Your task to perform on an android device: allow cookies in the chrome app Image 0: 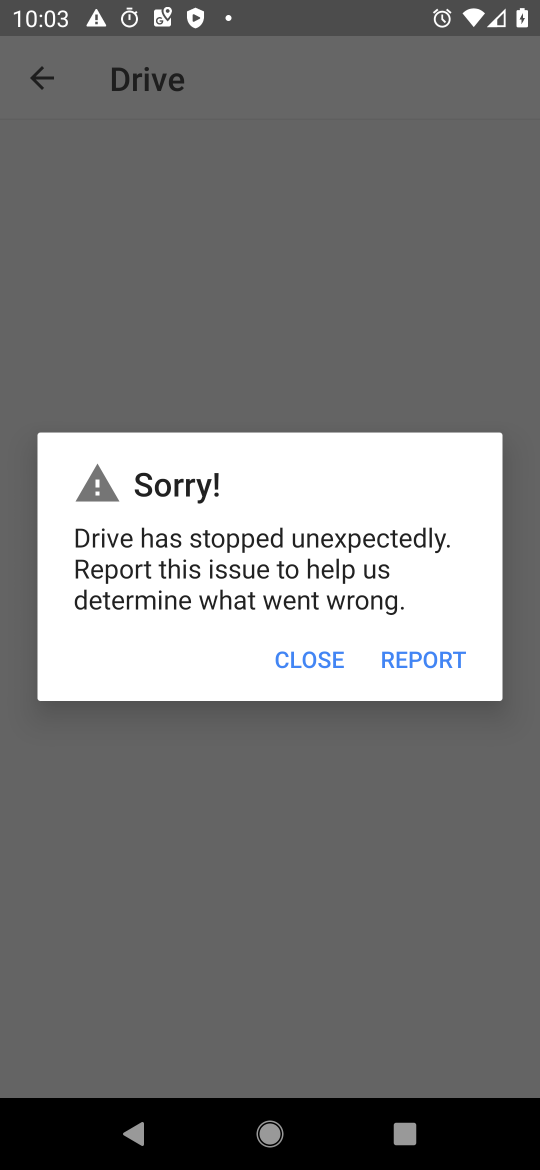
Step 0: drag from (365, 1103) to (312, 610)
Your task to perform on an android device: allow cookies in the chrome app Image 1: 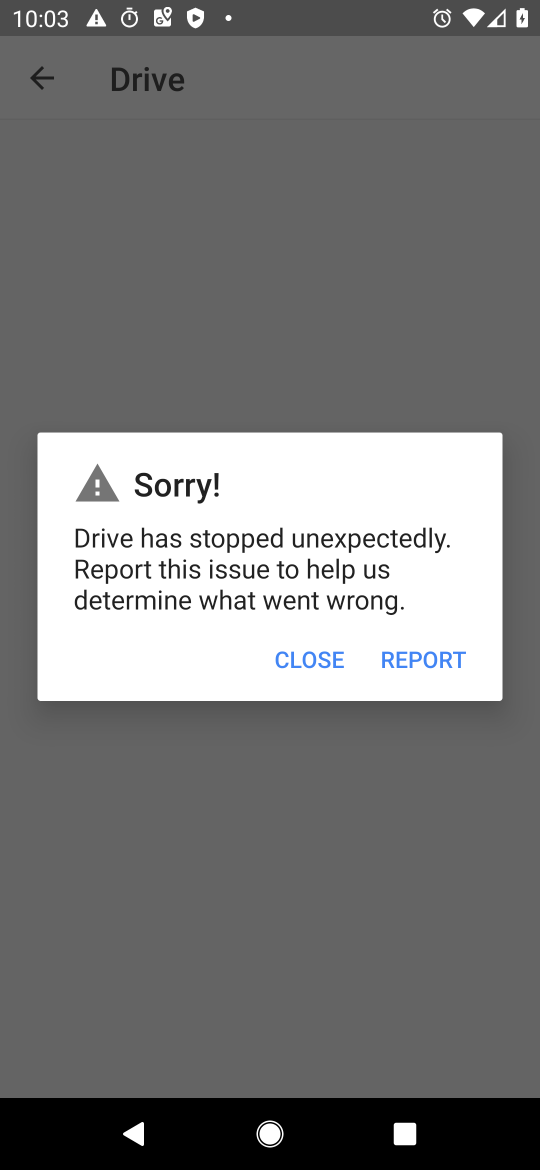
Step 1: press home button
Your task to perform on an android device: allow cookies in the chrome app Image 2: 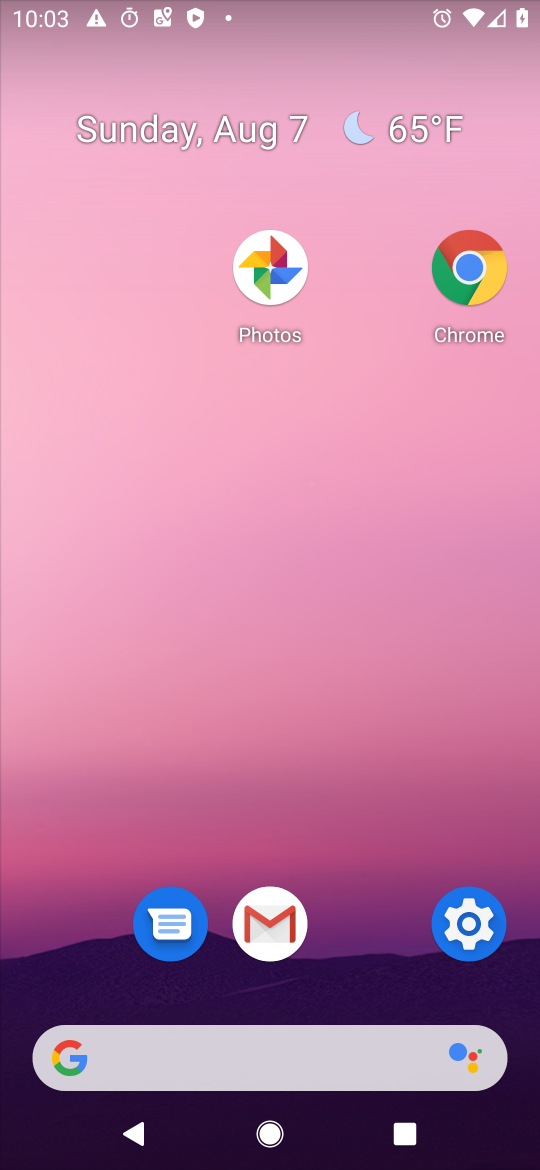
Step 2: drag from (356, 992) to (326, 277)
Your task to perform on an android device: allow cookies in the chrome app Image 3: 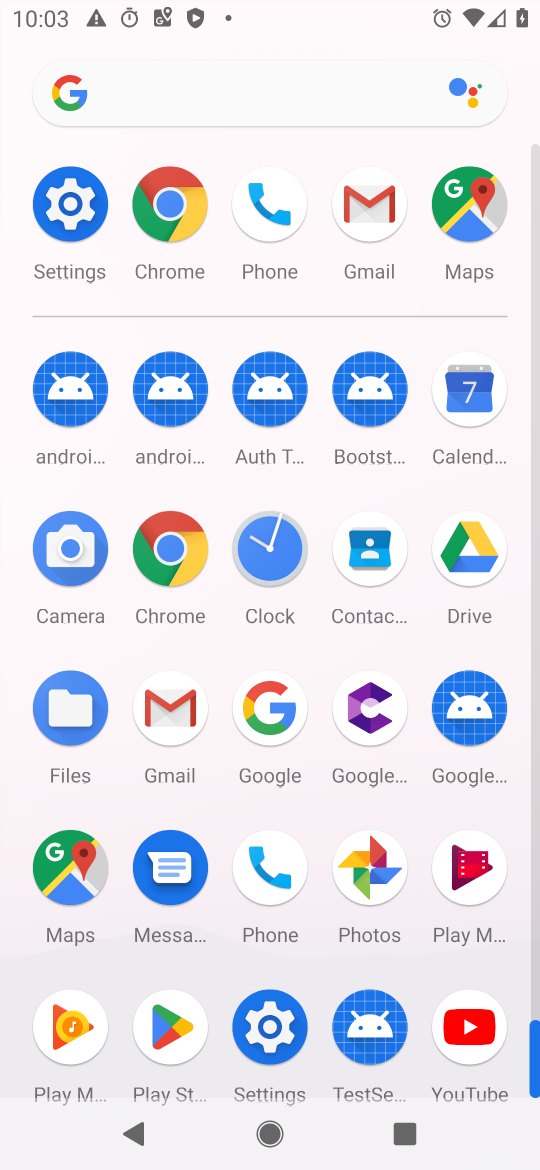
Step 3: click (164, 230)
Your task to perform on an android device: allow cookies in the chrome app Image 4: 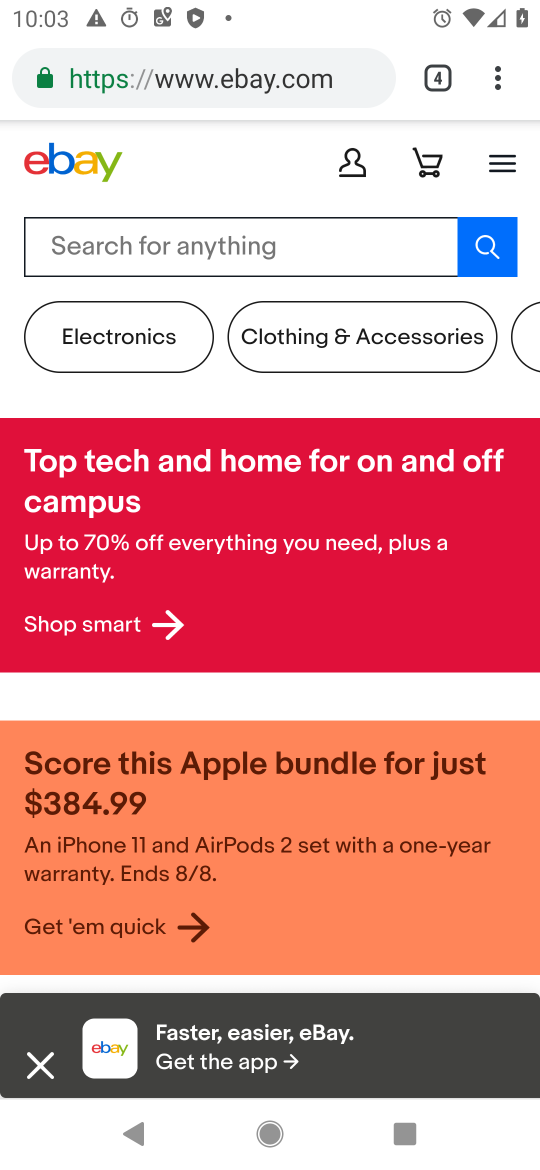
Step 4: click (497, 94)
Your task to perform on an android device: allow cookies in the chrome app Image 5: 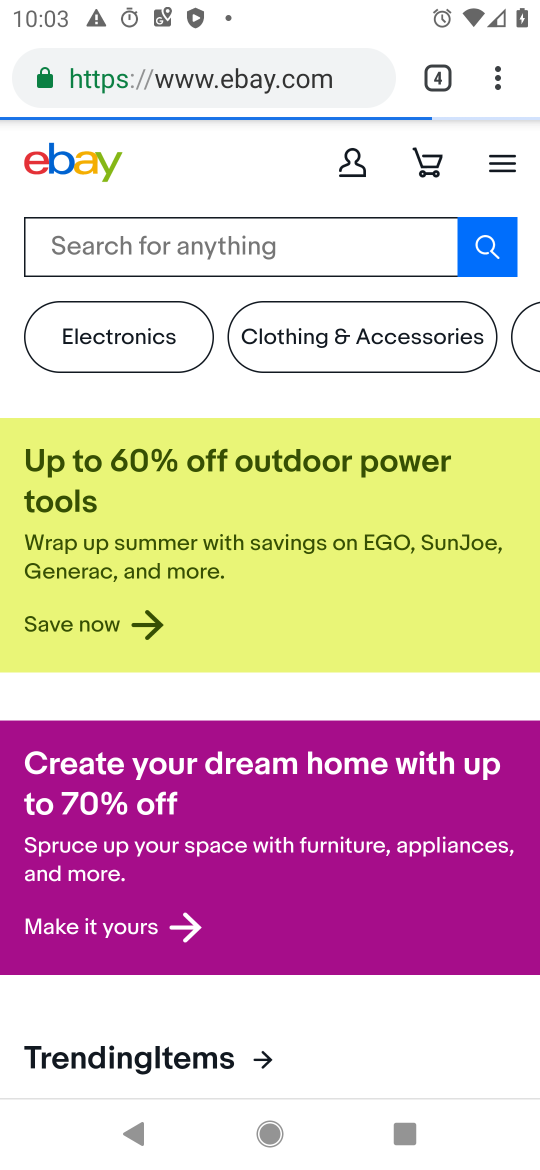
Step 5: click (506, 80)
Your task to perform on an android device: allow cookies in the chrome app Image 6: 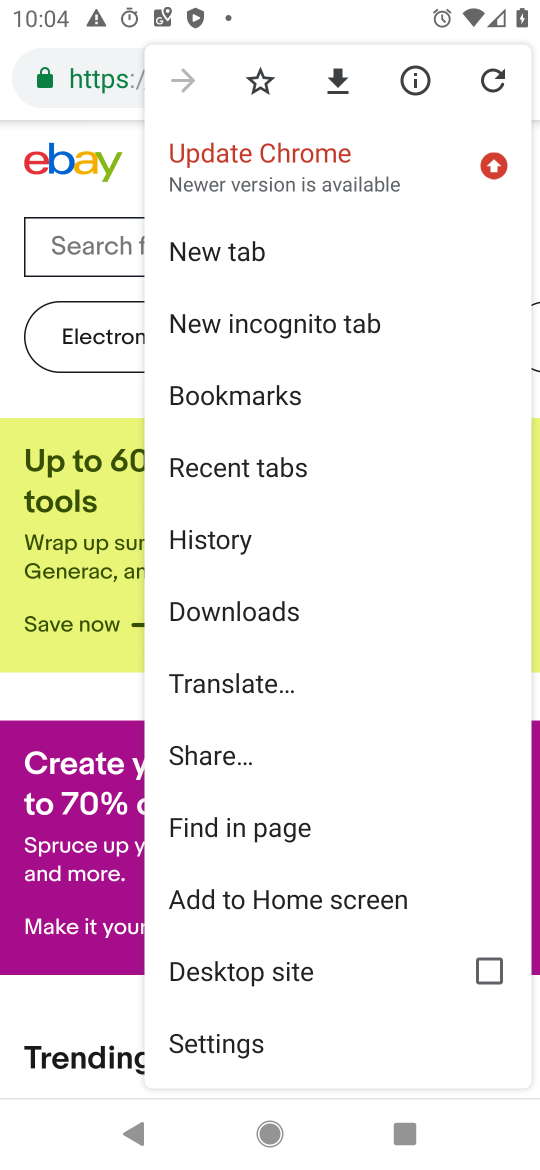
Step 6: click (204, 1033)
Your task to perform on an android device: allow cookies in the chrome app Image 7: 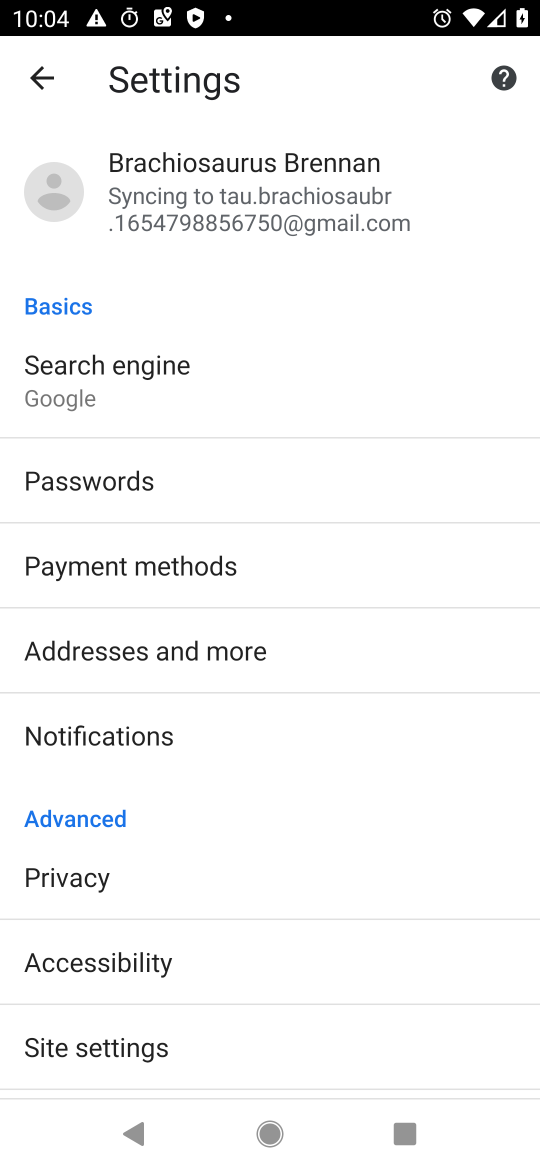
Step 7: click (121, 1049)
Your task to perform on an android device: allow cookies in the chrome app Image 8: 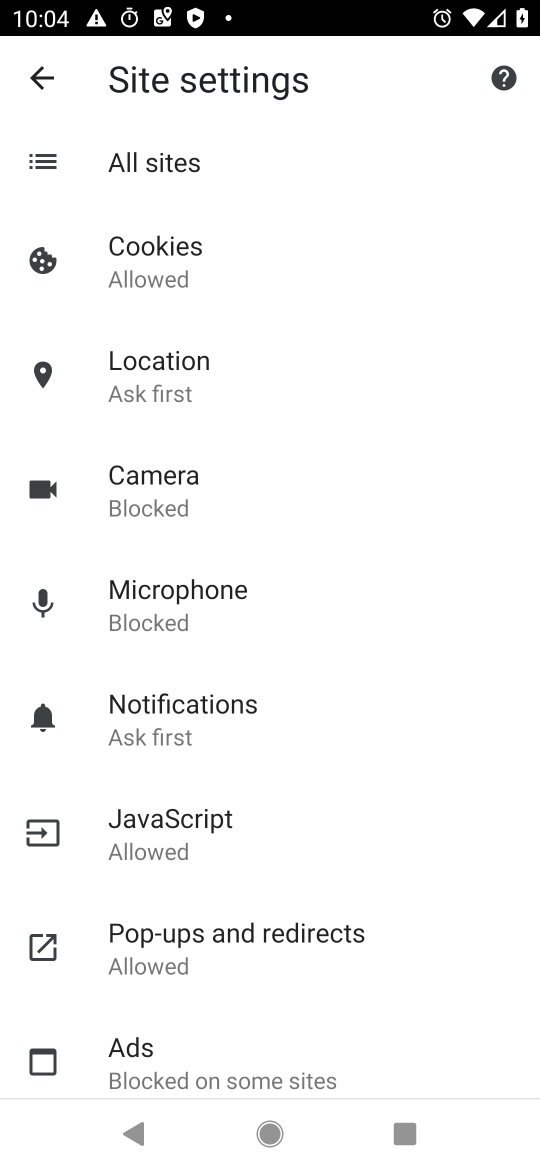
Step 8: click (196, 226)
Your task to perform on an android device: allow cookies in the chrome app Image 9: 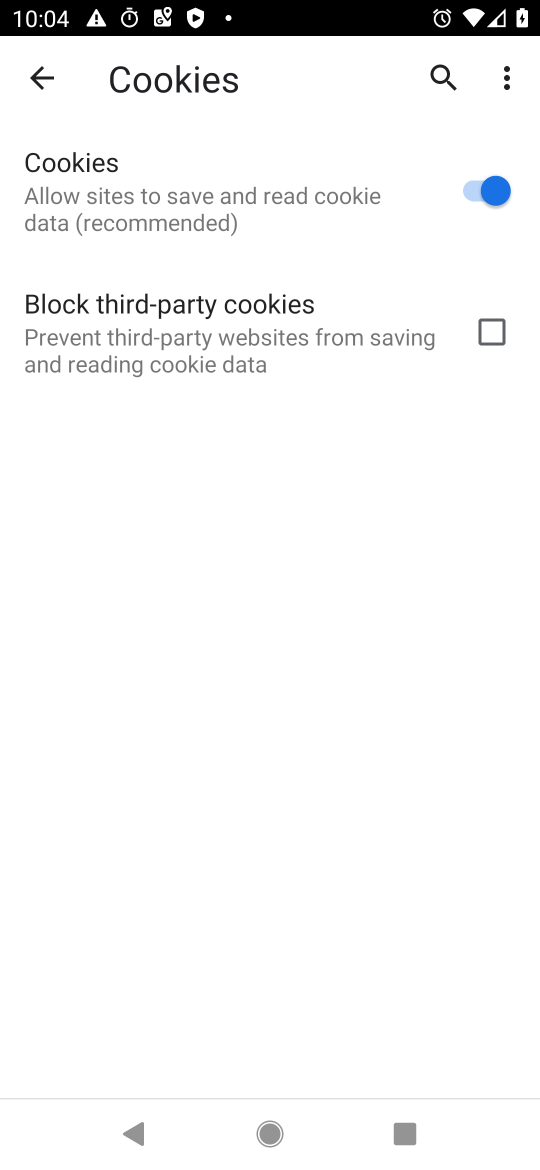
Step 9: click (208, 213)
Your task to perform on an android device: allow cookies in the chrome app Image 10: 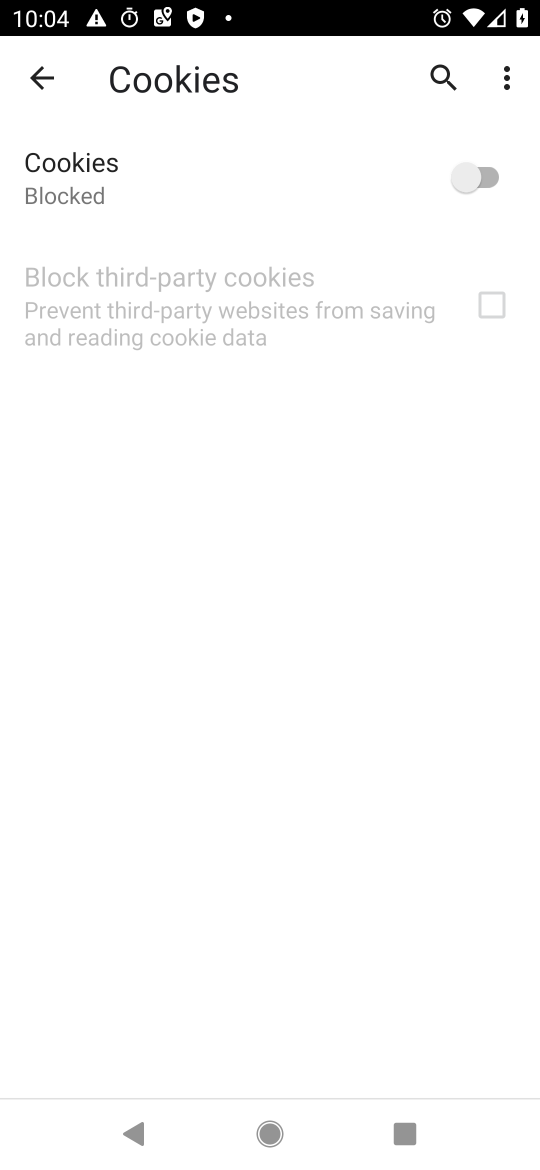
Step 10: click (208, 213)
Your task to perform on an android device: allow cookies in the chrome app Image 11: 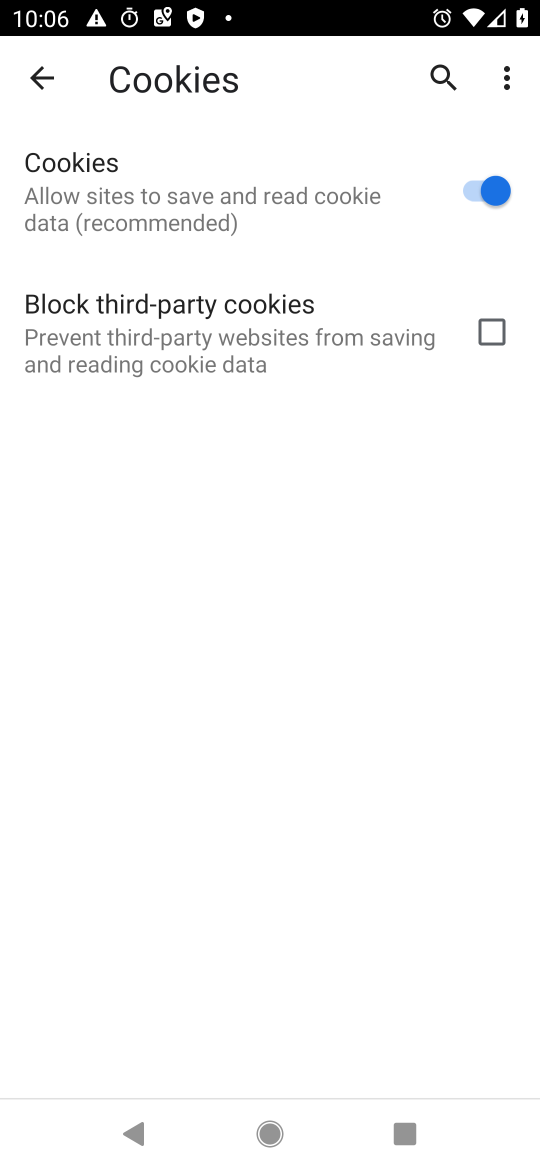
Step 11: task complete